Your task to perform on an android device: refresh tabs in the chrome app Image 0: 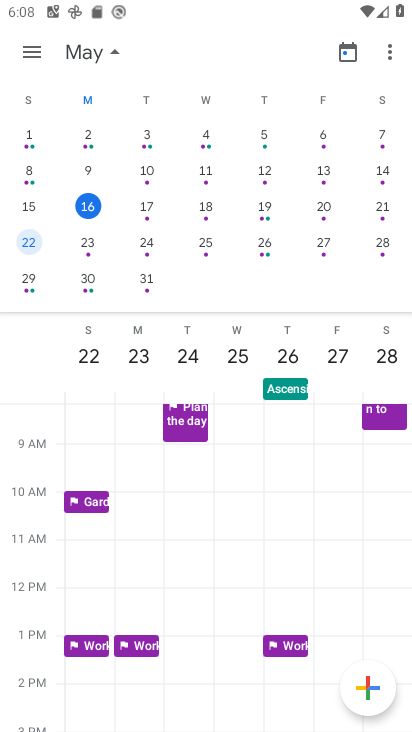
Step 0: press home button
Your task to perform on an android device: refresh tabs in the chrome app Image 1: 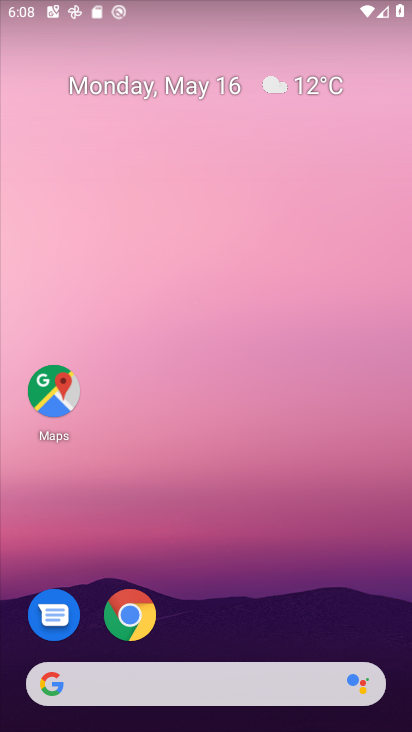
Step 1: click (142, 620)
Your task to perform on an android device: refresh tabs in the chrome app Image 2: 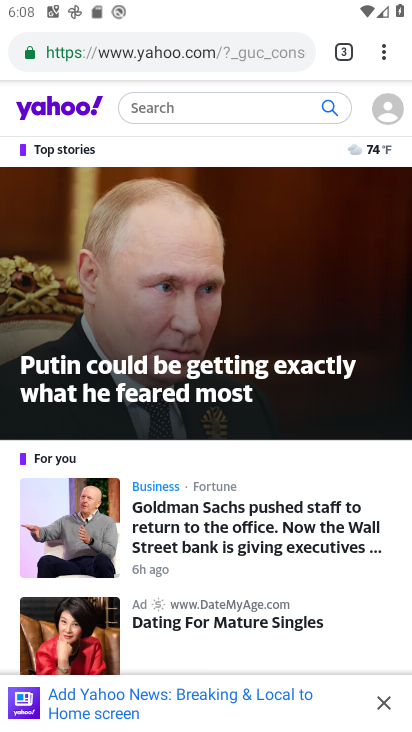
Step 2: click (390, 51)
Your task to perform on an android device: refresh tabs in the chrome app Image 3: 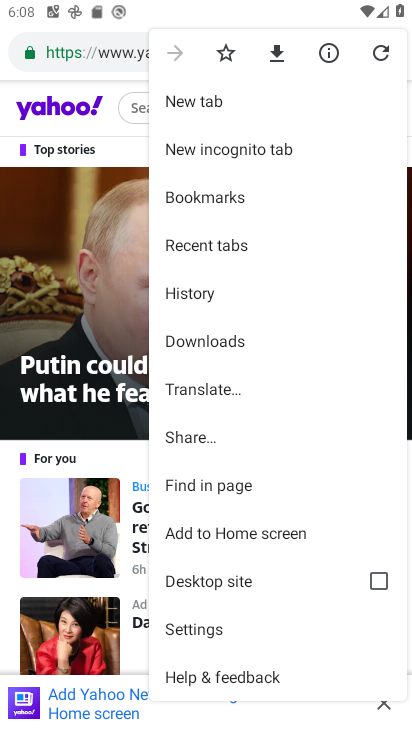
Step 3: click (385, 60)
Your task to perform on an android device: refresh tabs in the chrome app Image 4: 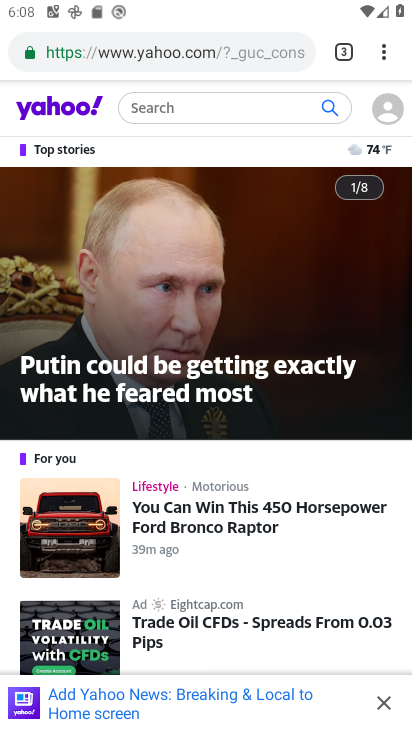
Step 4: task complete